Your task to perform on an android device: clear all cookies in the chrome app Image 0: 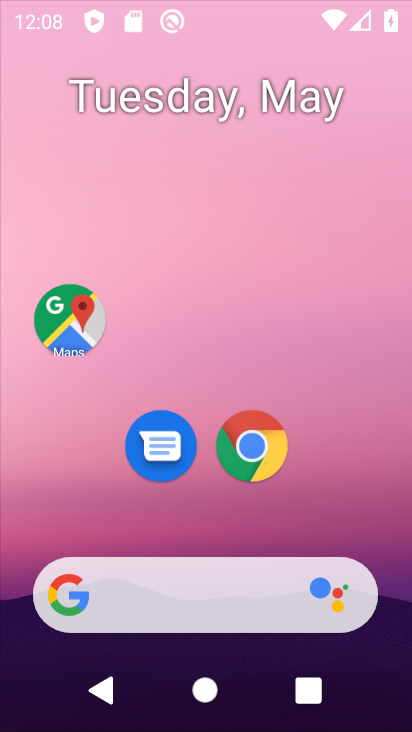
Step 0: drag from (248, 551) to (234, 8)
Your task to perform on an android device: clear all cookies in the chrome app Image 1: 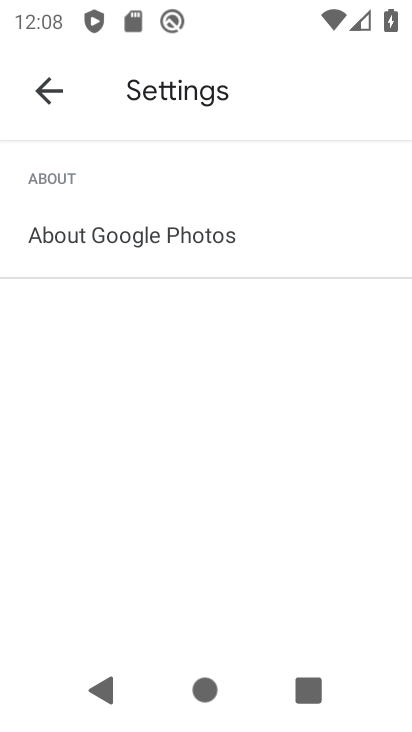
Step 1: press home button
Your task to perform on an android device: clear all cookies in the chrome app Image 2: 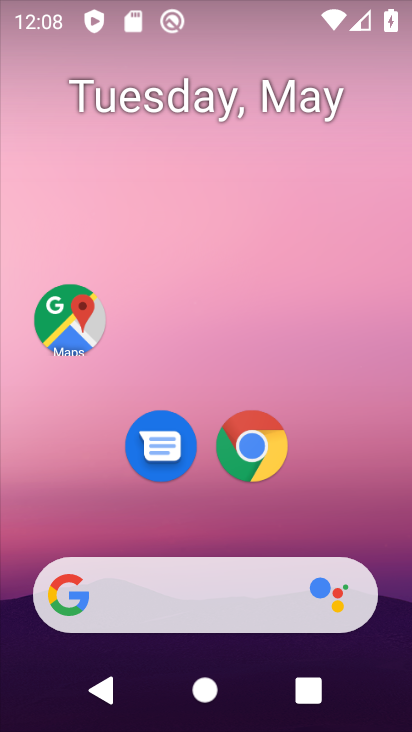
Step 2: drag from (258, 615) to (1, 211)
Your task to perform on an android device: clear all cookies in the chrome app Image 3: 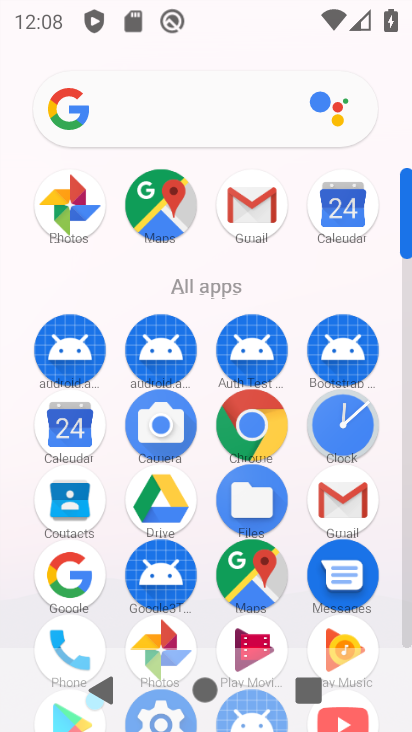
Step 3: click (251, 423)
Your task to perform on an android device: clear all cookies in the chrome app Image 4: 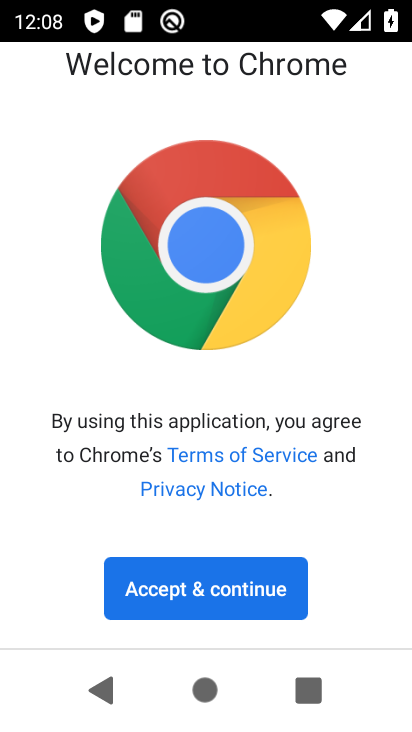
Step 4: click (257, 589)
Your task to perform on an android device: clear all cookies in the chrome app Image 5: 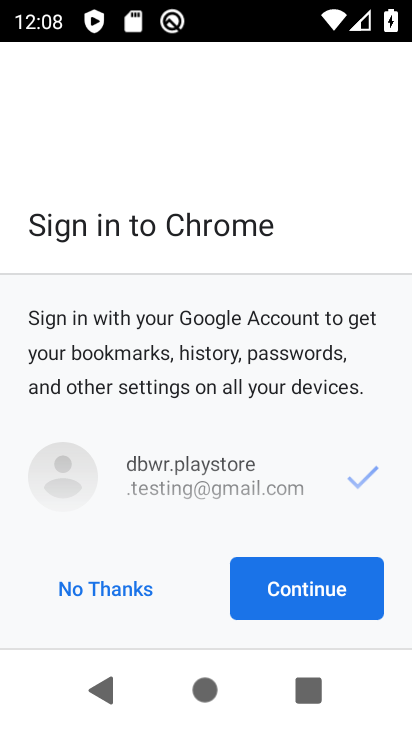
Step 5: click (303, 587)
Your task to perform on an android device: clear all cookies in the chrome app Image 6: 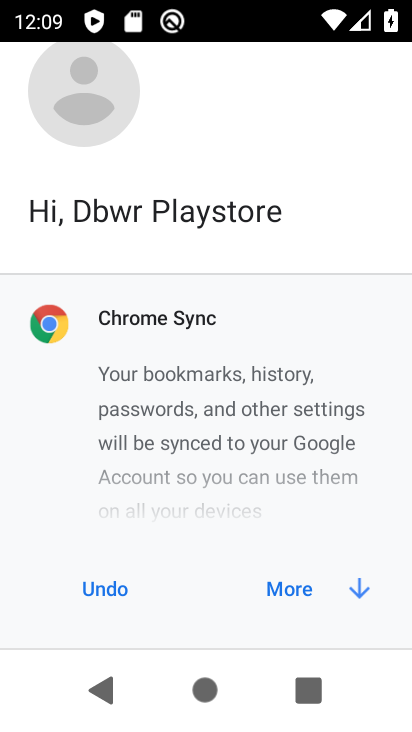
Step 6: click (295, 601)
Your task to perform on an android device: clear all cookies in the chrome app Image 7: 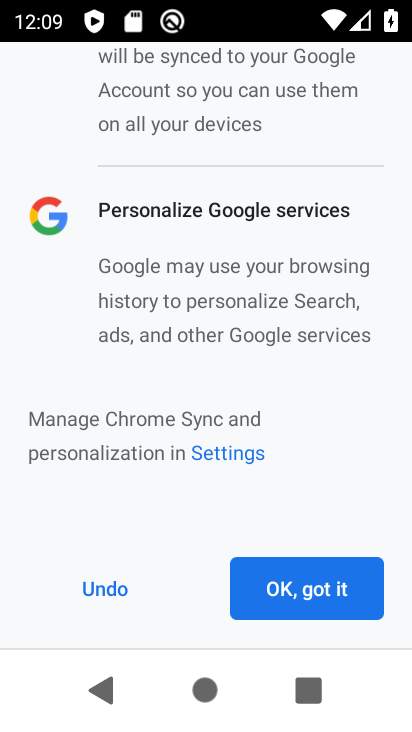
Step 7: click (342, 601)
Your task to perform on an android device: clear all cookies in the chrome app Image 8: 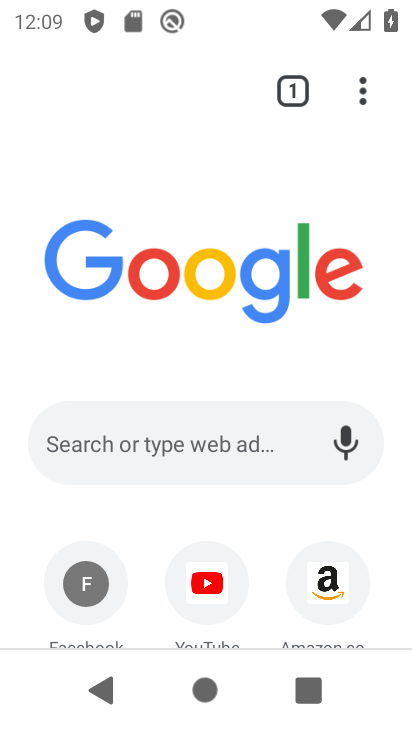
Step 8: click (368, 92)
Your task to perform on an android device: clear all cookies in the chrome app Image 9: 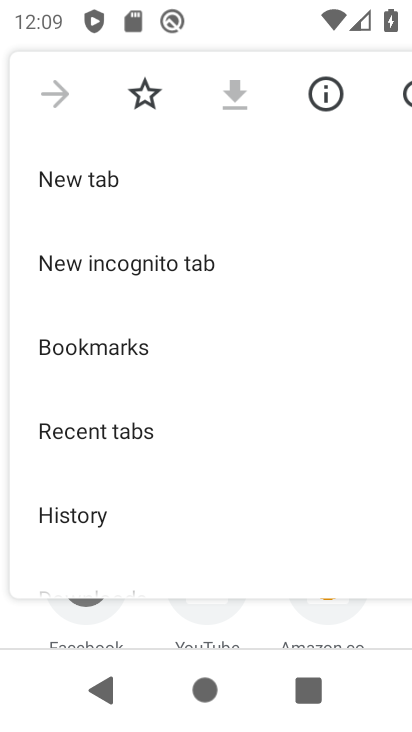
Step 9: drag from (176, 464) to (183, 295)
Your task to perform on an android device: clear all cookies in the chrome app Image 10: 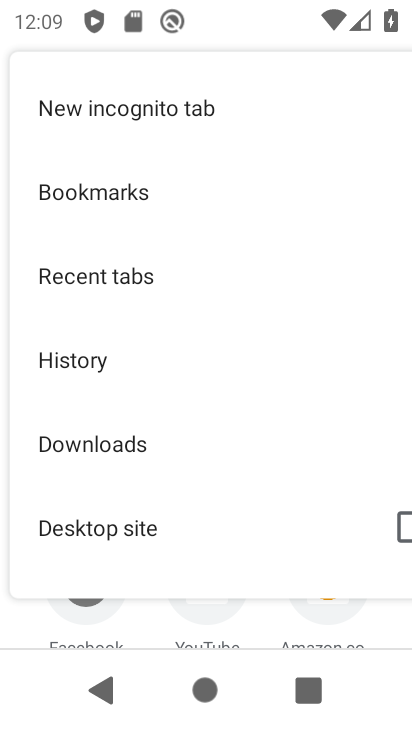
Step 10: drag from (196, 491) to (227, 281)
Your task to perform on an android device: clear all cookies in the chrome app Image 11: 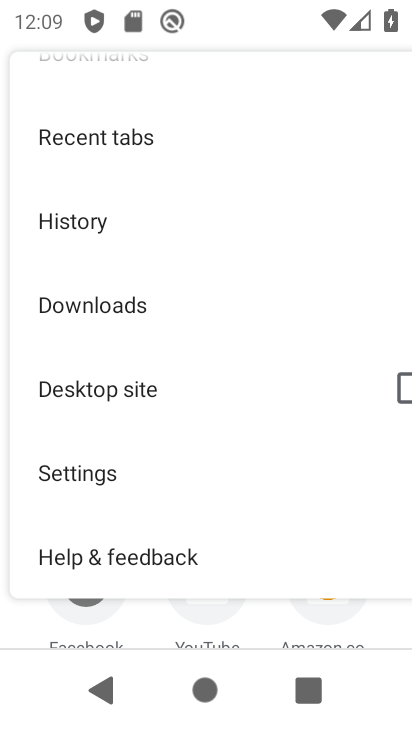
Step 11: drag from (196, 470) to (207, 352)
Your task to perform on an android device: clear all cookies in the chrome app Image 12: 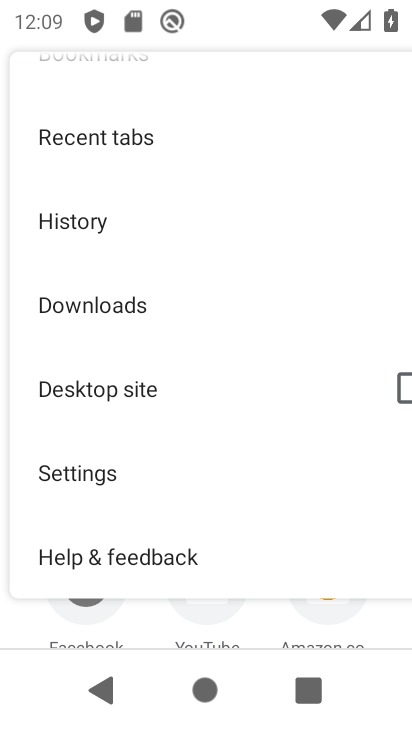
Step 12: click (85, 216)
Your task to perform on an android device: clear all cookies in the chrome app Image 13: 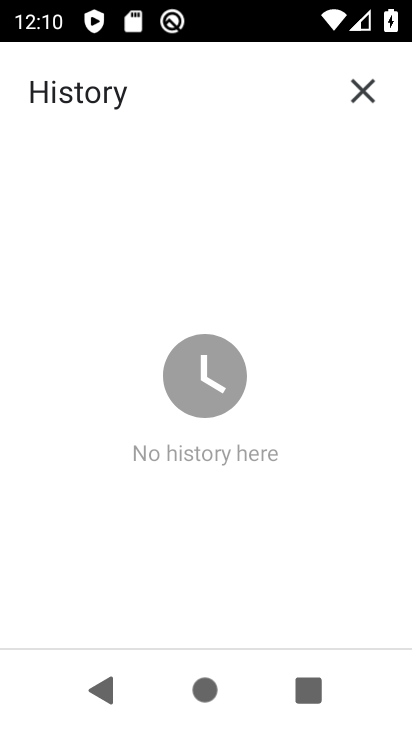
Step 13: task complete